Your task to perform on an android device: Open Maps and search for coffee Image 0: 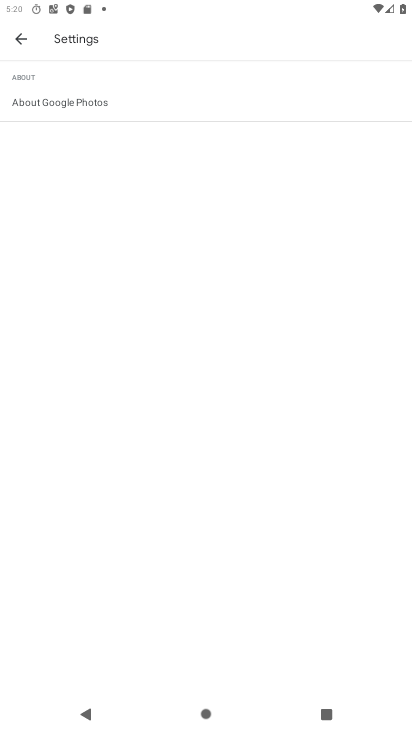
Step 0: press home button
Your task to perform on an android device: Open Maps and search for coffee Image 1: 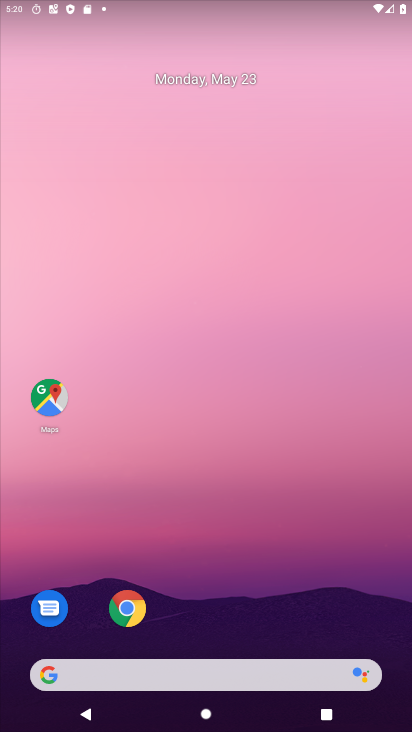
Step 1: click (53, 394)
Your task to perform on an android device: Open Maps and search for coffee Image 2: 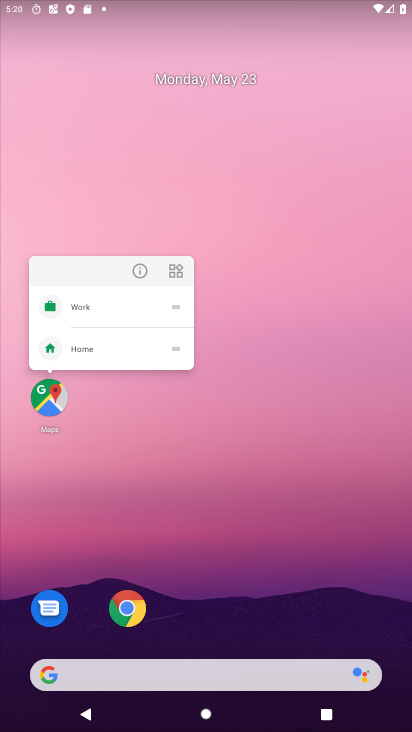
Step 2: click (53, 394)
Your task to perform on an android device: Open Maps and search for coffee Image 3: 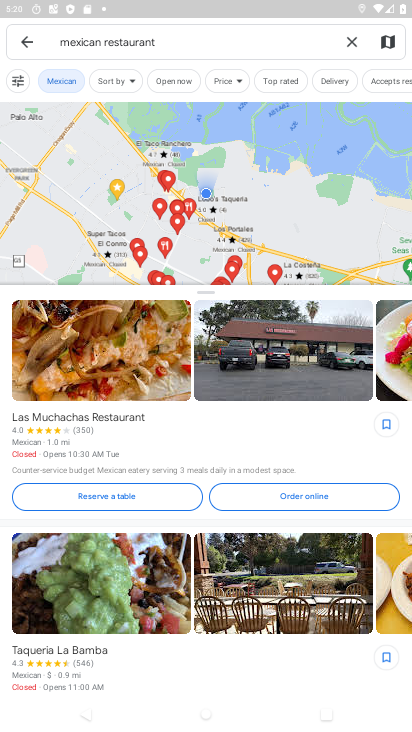
Step 3: click (354, 37)
Your task to perform on an android device: Open Maps and search for coffee Image 4: 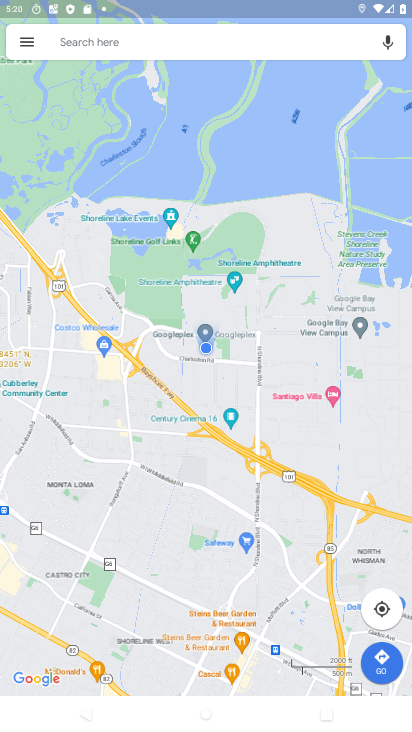
Step 4: click (253, 54)
Your task to perform on an android device: Open Maps and search for coffee Image 5: 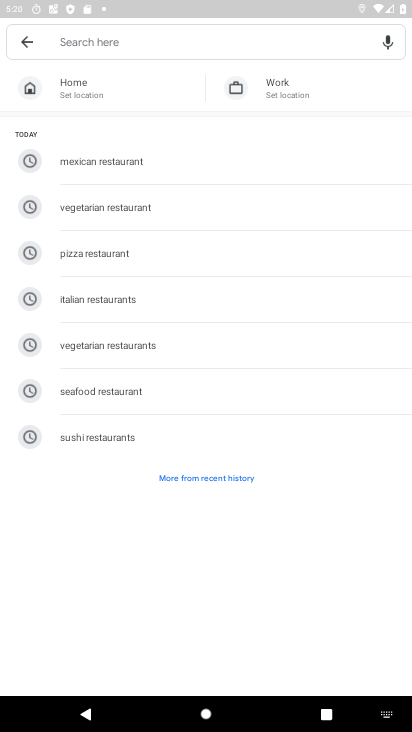
Step 5: type "coffee"
Your task to perform on an android device: Open Maps and search for coffee Image 6: 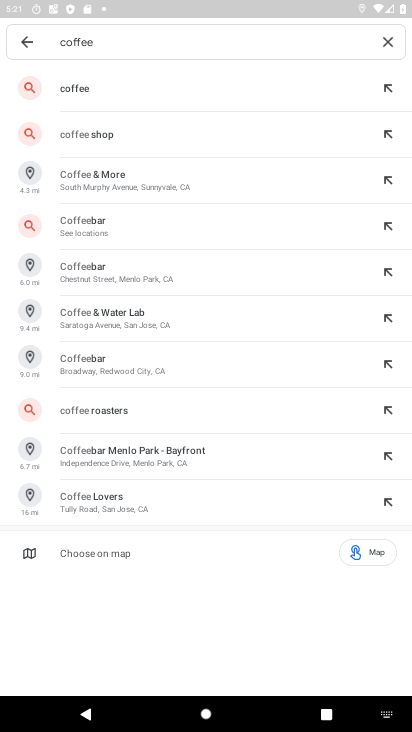
Step 6: click (101, 82)
Your task to perform on an android device: Open Maps and search for coffee Image 7: 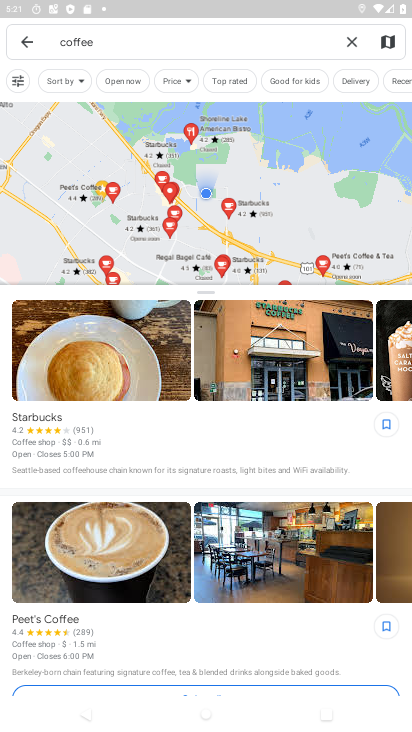
Step 7: task complete